Your task to perform on an android device: Go to Maps Image 0: 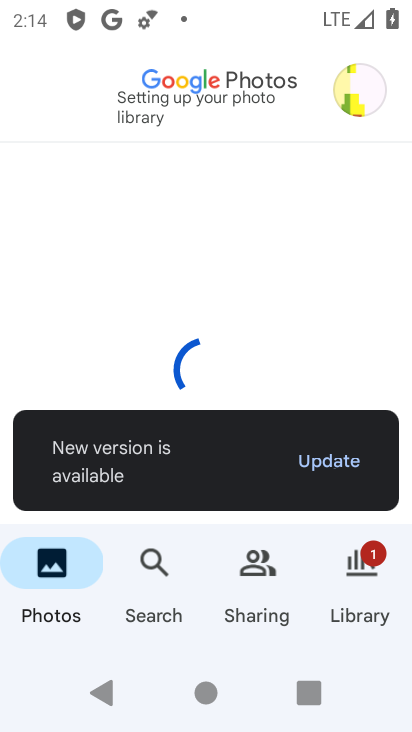
Step 0: press home button
Your task to perform on an android device: Go to Maps Image 1: 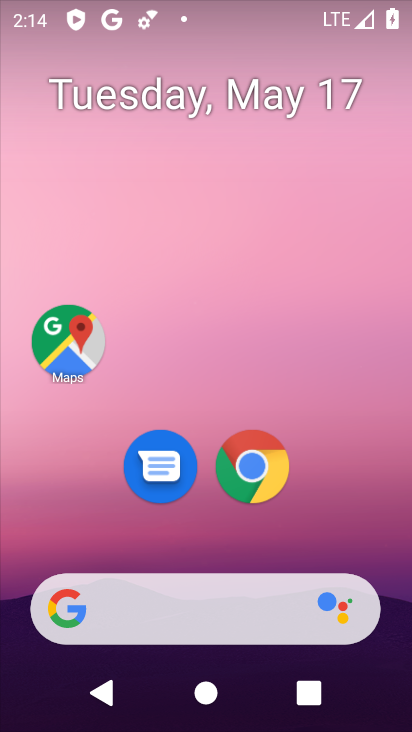
Step 1: click (81, 343)
Your task to perform on an android device: Go to Maps Image 2: 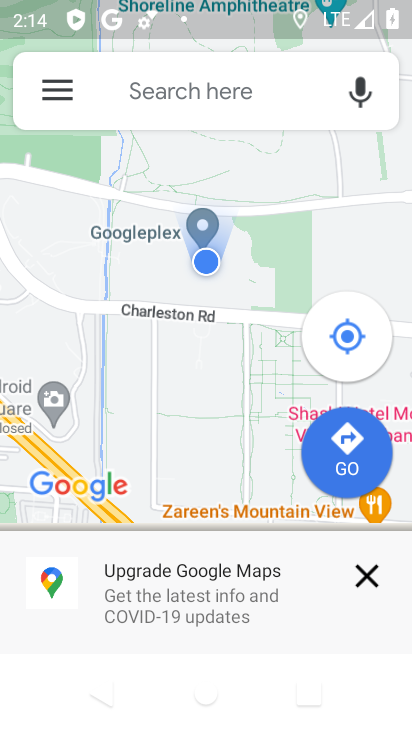
Step 2: task complete